Your task to perform on an android device: Is it going to rain tomorrow? Image 0: 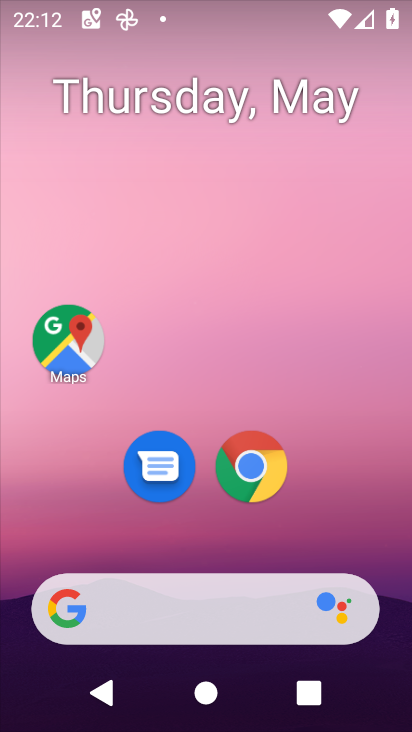
Step 0: drag from (349, 512) to (348, 106)
Your task to perform on an android device: Is it going to rain tomorrow? Image 1: 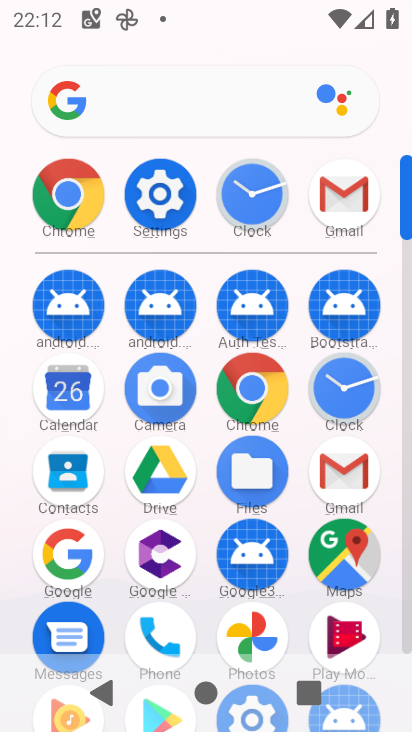
Step 1: click (216, 117)
Your task to perform on an android device: Is it going to rain tomorrow? Image 2: 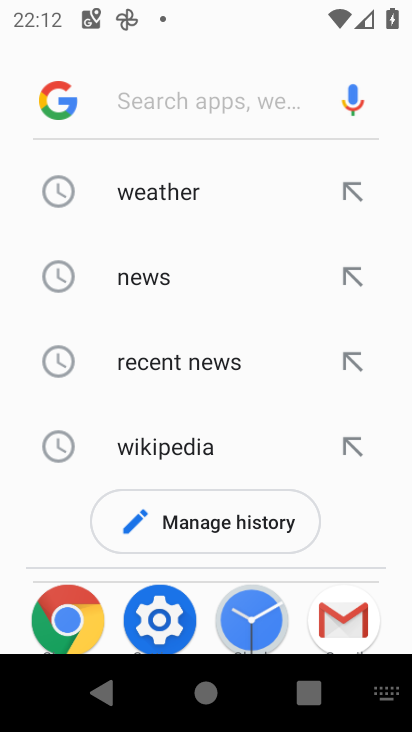
Step 2: click (246, 187)
Your task to perform on an android device: Is it going to rain tomorrow? Image 3: 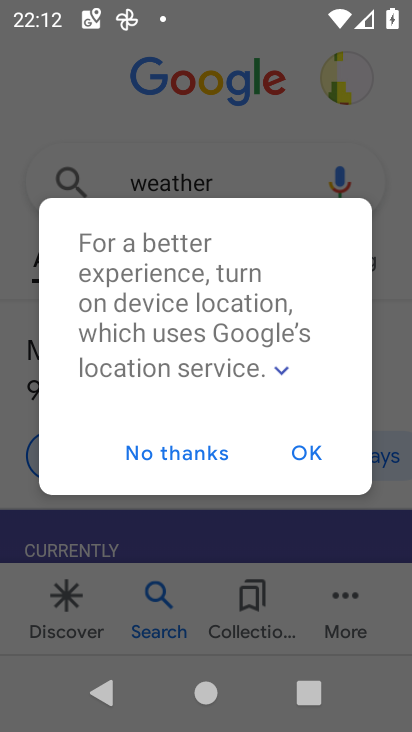
Step 3: click (319, 462)
Your task to perform on an android device: Is it going to rain tomorrow? Image 4: 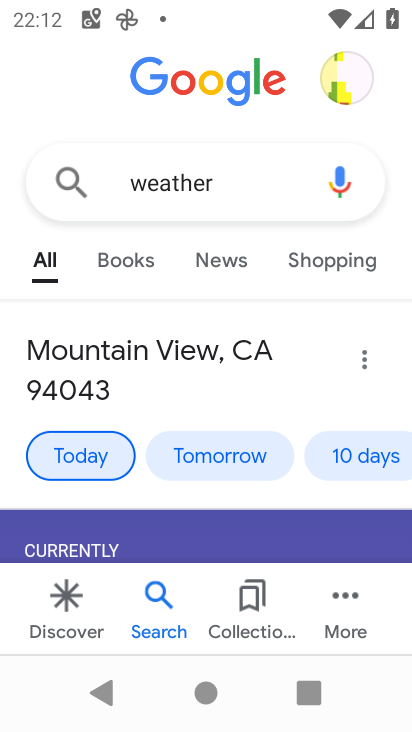
Step 4: click (254, 468)
Your task to perform on an android device: Is it going to rain tomorrow? Image 5: 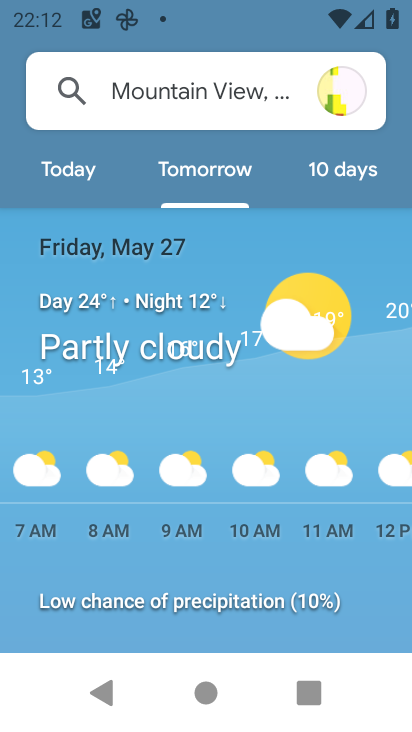
Step 5: task complete